Your task to perform on an android device: turn on wifi Image 0: 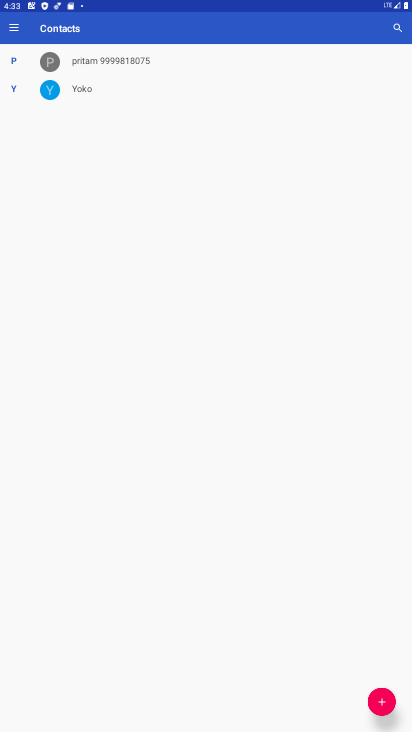
Step 0: press home button
Your task to perform on an android device: turn on wifi Image 1: 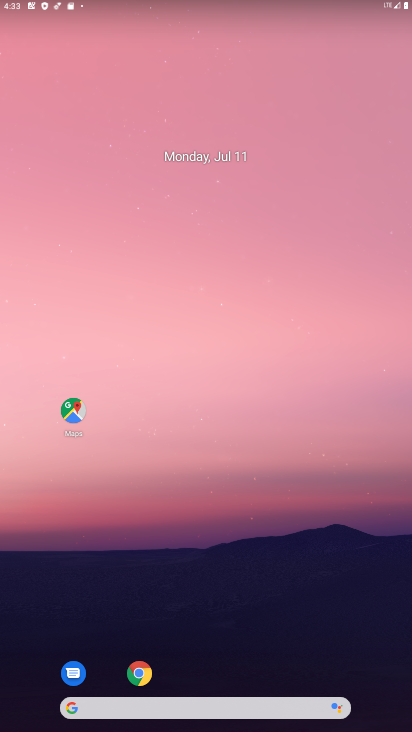
Step 1: drag from (335, 594) to (339, 51)
Your task to perform on an android device: turn on wifi Image 2: 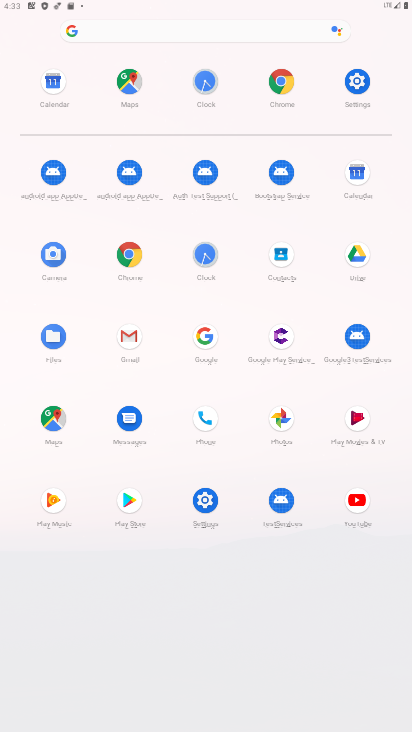
Step 2: click (363, 74)
Your task to perform on an android device: turn on wifi Image 3: 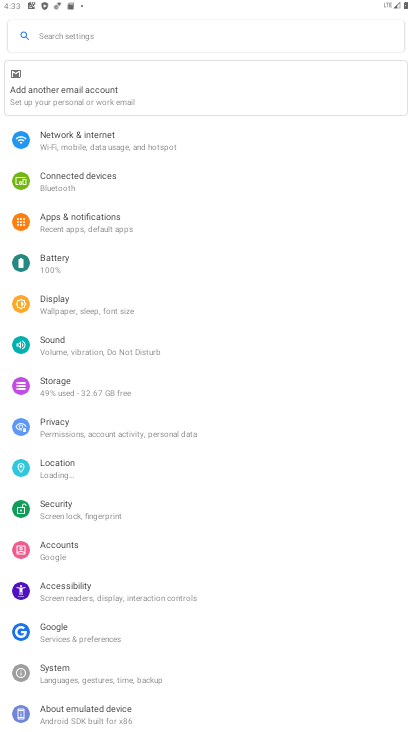
Step 3: click (121, 134)
Your task to perform on an android device: turn on wifi Image 4: 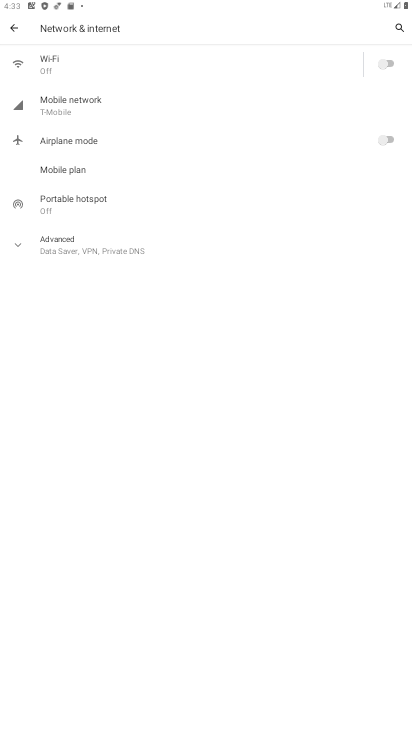
Step 4: click (113, 71)
Your task to perform on an android device: turn on wifi Image 5: 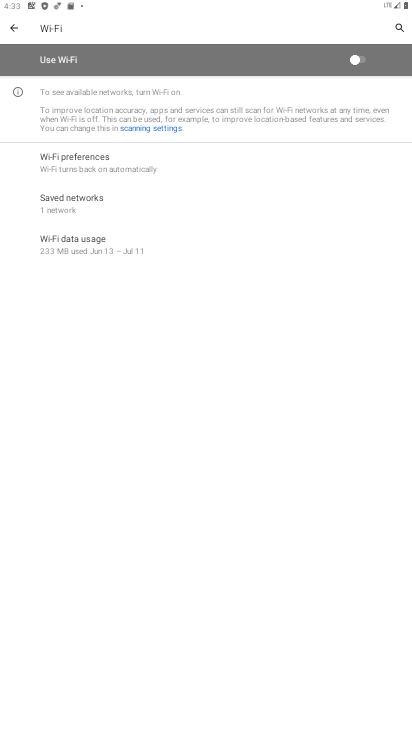
Step 5: click (372, 50)
Your task to perform on an android device: turn on wifi Image 6: 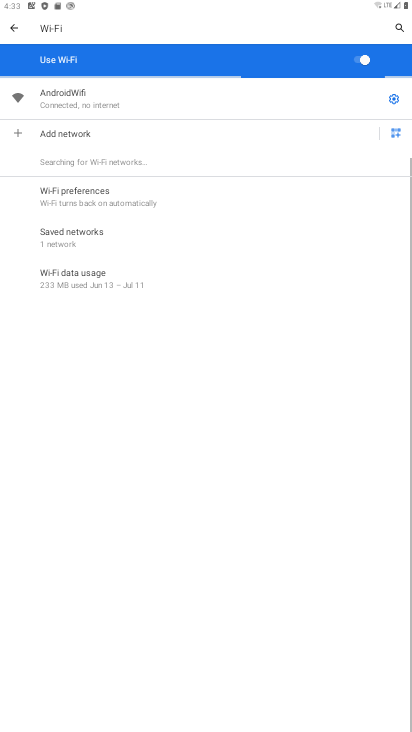
Step 6: task complete